Your task to perform on an android device: Turn off the flashlight Image 0: 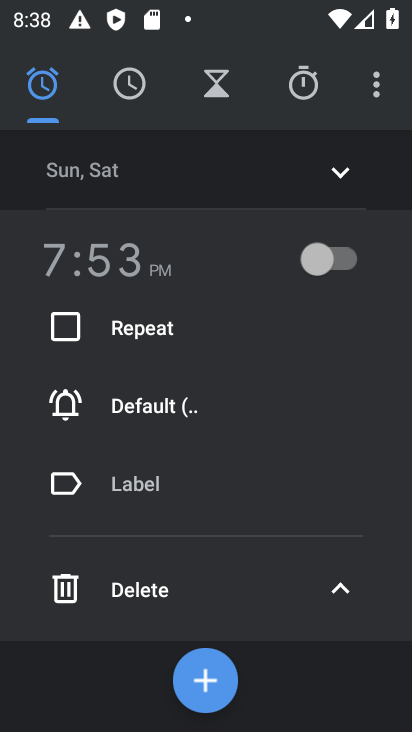
Step 0: drag from (121, 0) to (190, 469)
Your task to perform on an android device: Turn off the flashlight Image 1: 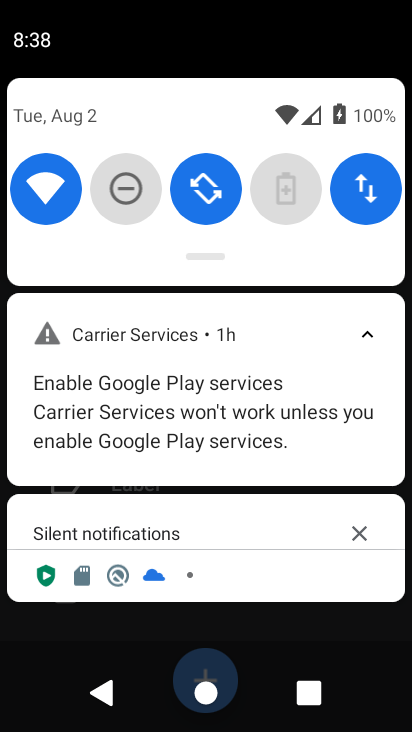
Step 1: drag from (198, 189) to (259, 502)
Your task to perform on an android device: Turn off the flashlight Image 2: 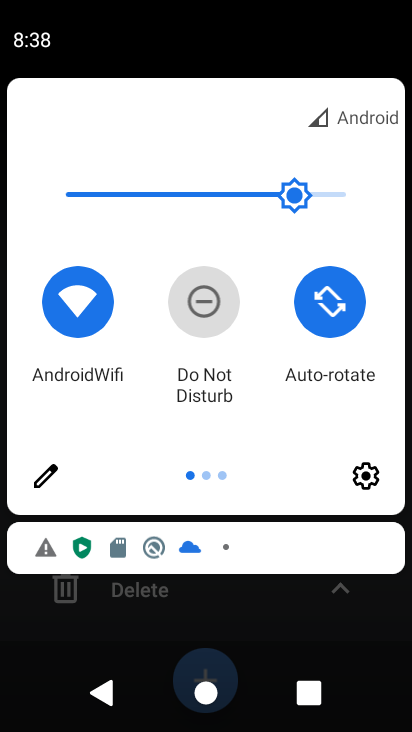
Step 2: drag from (356, 384) to (15, 416)
Your task to perform on an android device: Turn off the flashlight Image 3: 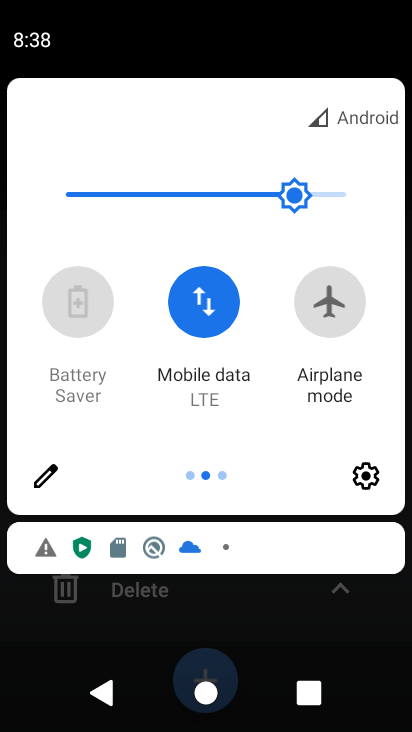
Step 3: drag from (240, 364) to (7, 416)
Your task to perform on an android device: Turn off the flashlight Image 4: 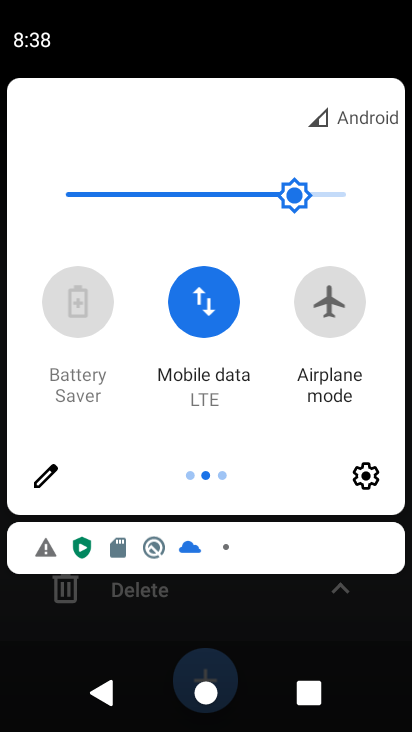
Step 4: drag from (362, 367) to (53, 380)
Your task to perform on an android device: Turn off the flashlight Image 5: 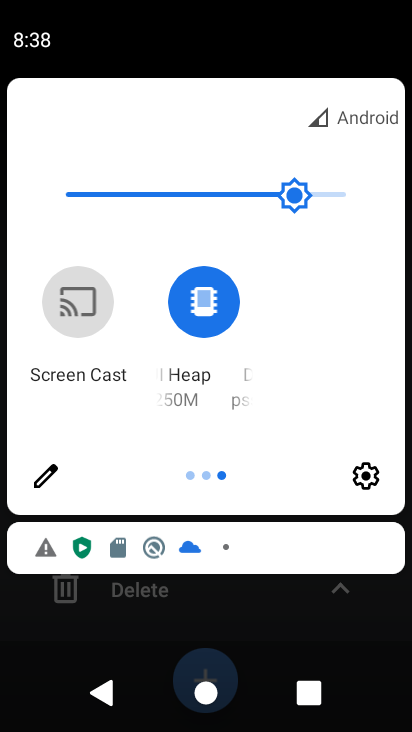
Step 5: click (43, 475)
Your task to perform on an android device: Turn off the flashlight Image 6: 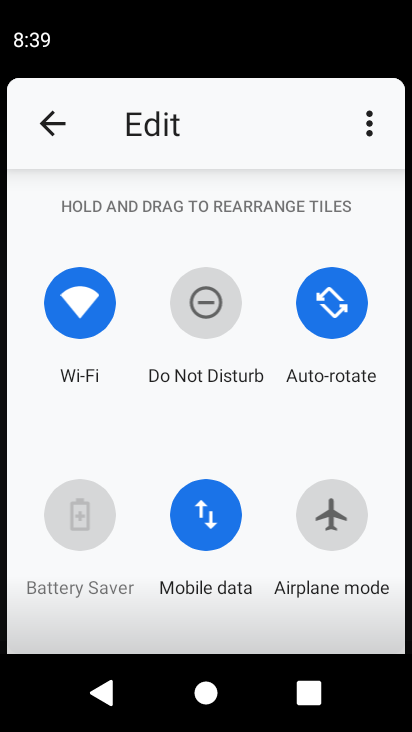
Step 6: task complete